Your task to perform on an android device: toggle airplane mode Image 0: 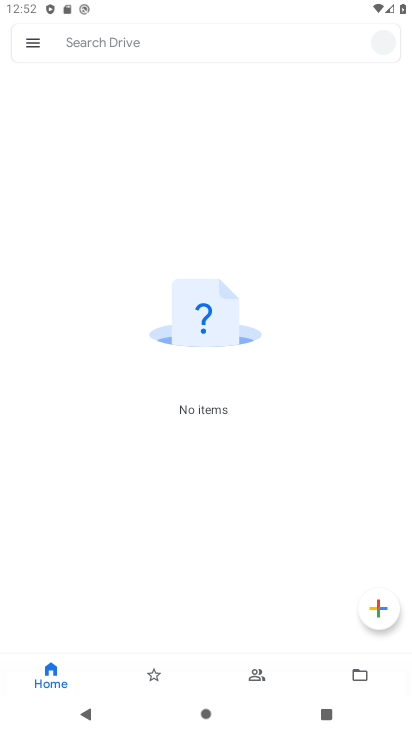
Step 0: press home button
Your task to perform on an android device: toggle airplane mode Image 1: 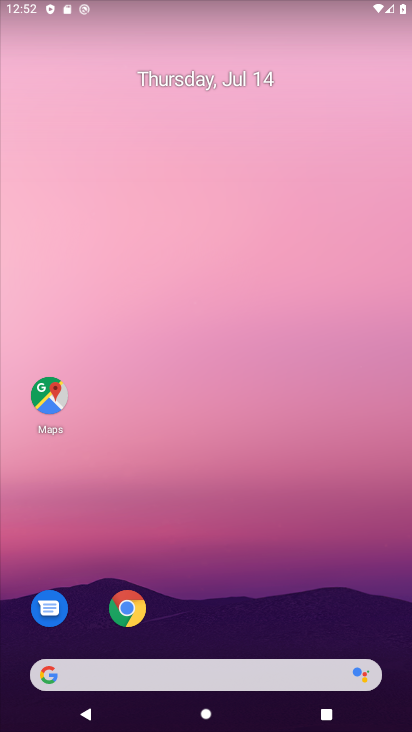
Step 1: drag from (232, 644) to (255, 168)
Your task to perform on an android device: toggle airplane mode Image 2: 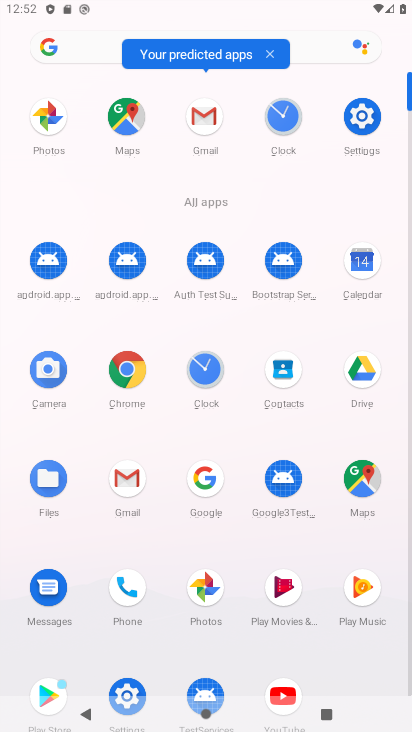
Step 2: click (363, 122)
Your task to perform on an android device: toggle airplane mode Image 3: 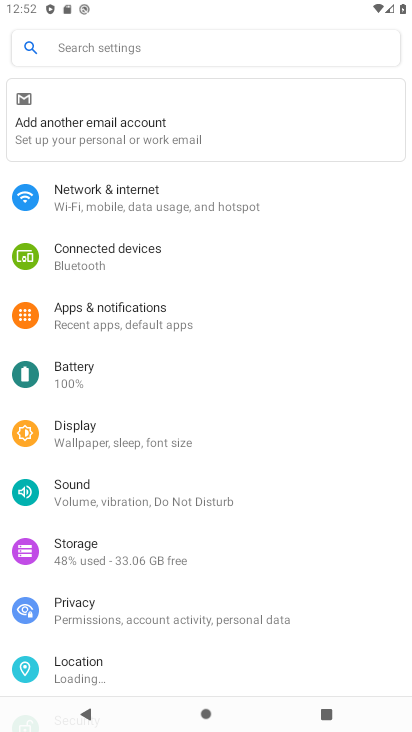
Step 3: click (131, 204)
Your task to perform on an android device: toggle airplane mode Image 4: 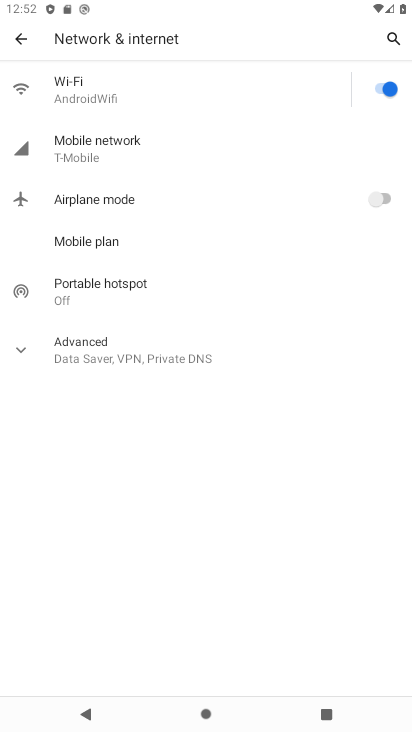
Step 4: click (384, 199)
Your task to perform on an android device: toggle airplane mode Image 5: 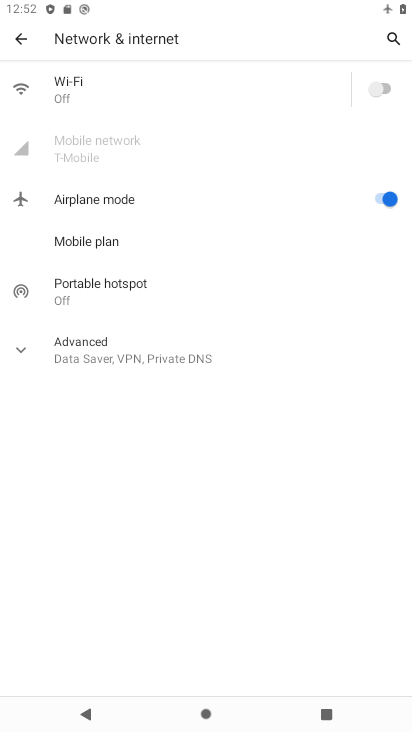
Step 5: task complete